Your task to perform on an android device: turn on bluetooth scan Image 0: 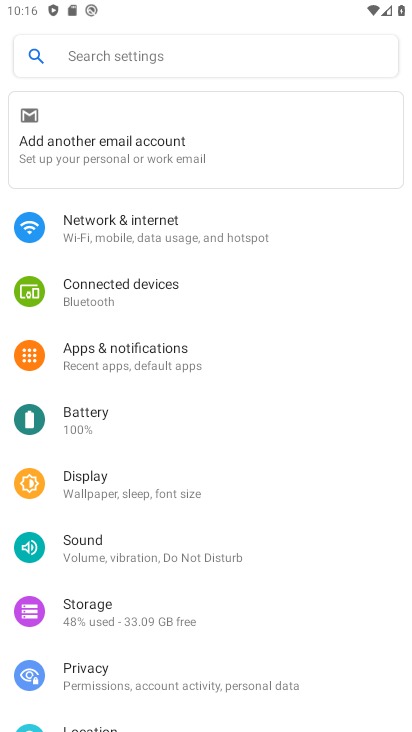
Step 0: drag from (187, 534) to (287, 189)
Your task to perform on an android device: turn on bluetooth scan Image 1: 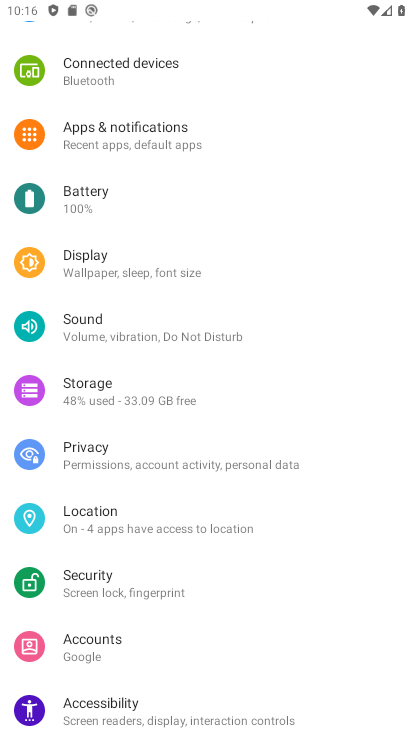
Step 1: click (134, 517)
Your task to perform on an android device: turn on bluetooth scan Image 2: 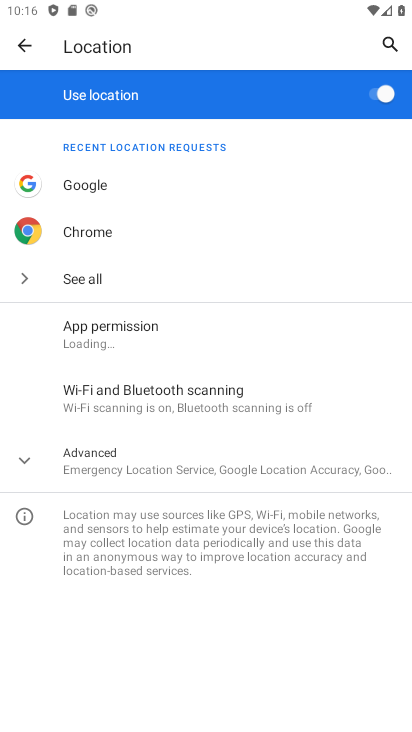
Step 2: click (174, 411)
Your task to perform on an android device: turn on bluetooth scan Image 3: 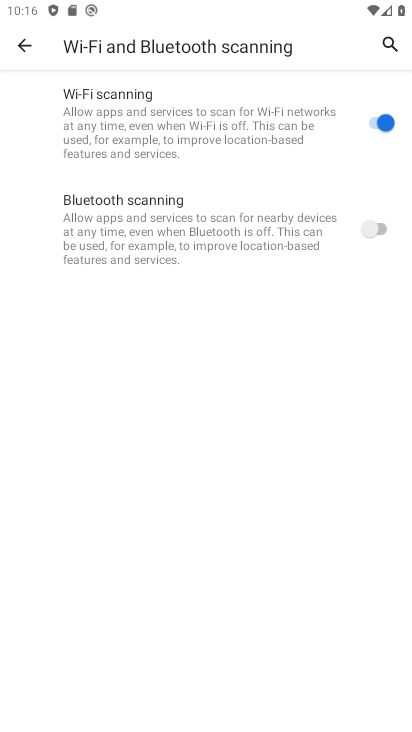
Step 3: click (387, 228)
Your task to perform on an android device: turn on bluetooth scan Image 4: 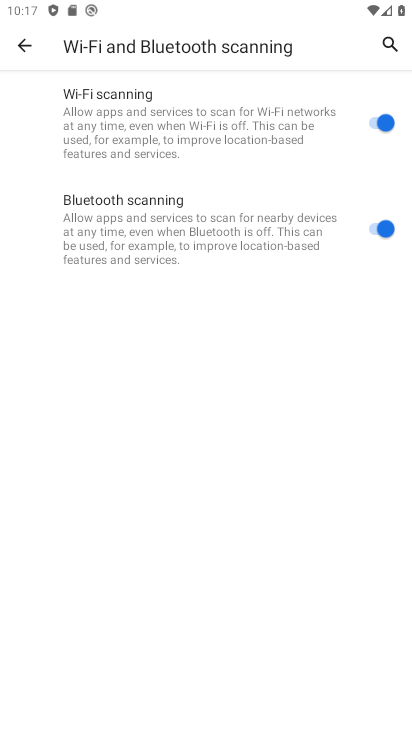
Step 4: task complete